Your task to perform on an android device: Go to accessibility settings Image 0: 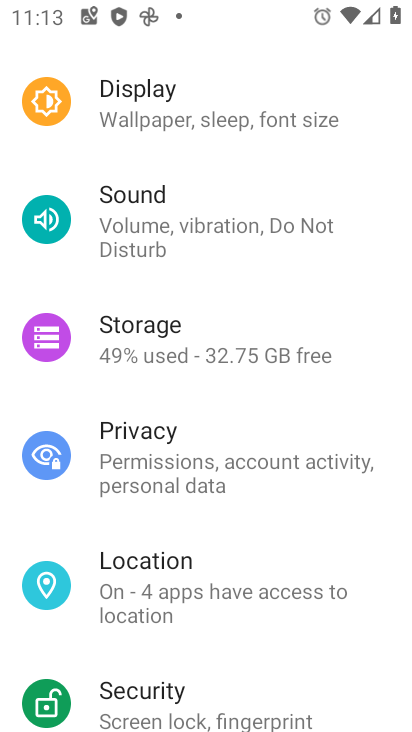
Step 0: drag from (231, 558) to (169, 116)
Your task to perform on an android device: Go to accessibility settings Image 1: 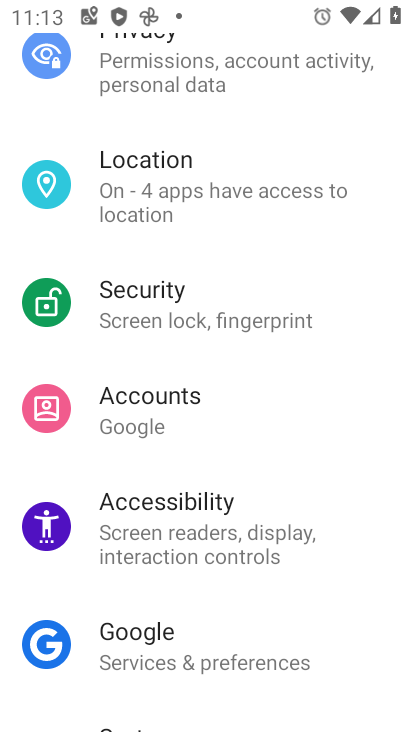
Step 1: click (204, 508)
Your task to perform on an android device: Go to accessibility settings Image 2: 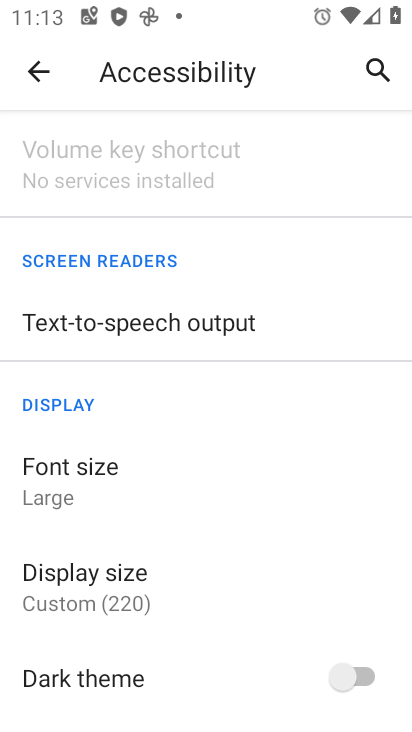
Step 2: task complete